Your task to perform on an android device: Go to notification settings Image 0: 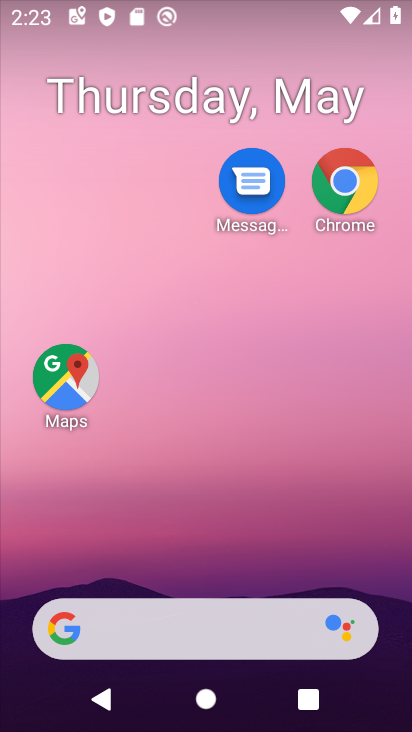
Step 0: drag from (334, 613) to (398, 39)
Your task to perform on an android device: Go to notification settings Image 1: 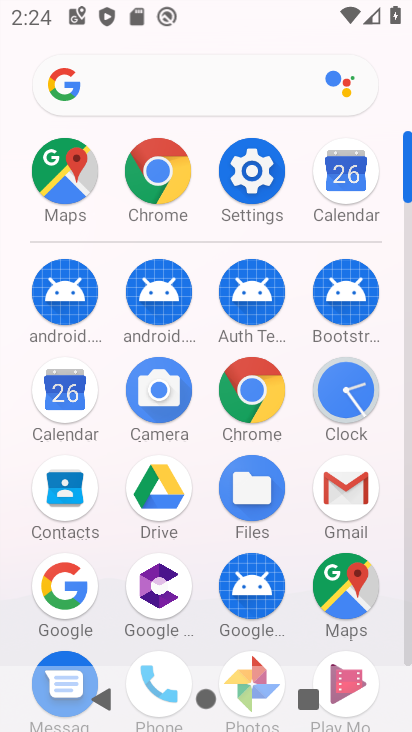
Step 1: click (258, 174)
Your task to perform on an android device: Go to notification settings Image 2: 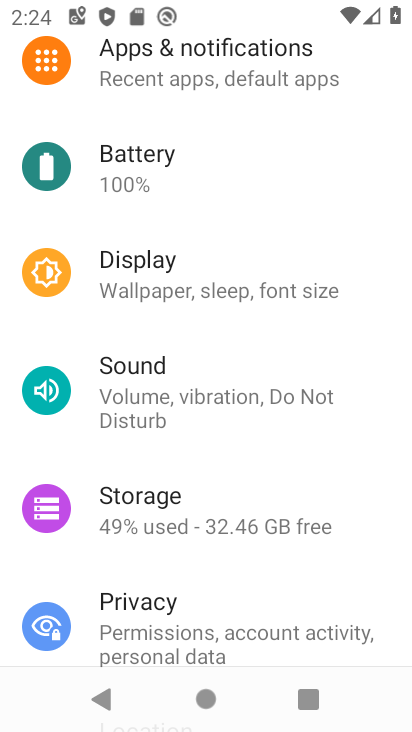
Step 2: click (229, 60)
Your task to perform on an android device: Go to notification settings Image 3: 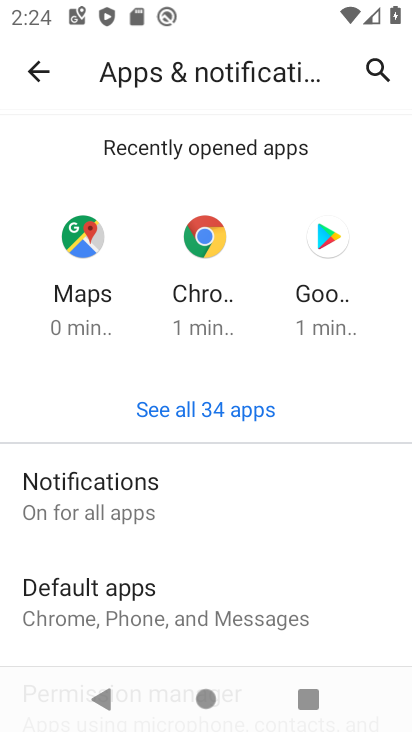
Step 3: drag from (224, 630) to (276, 315)
Your task to perform on an android device: Go to notification settings Image 4: 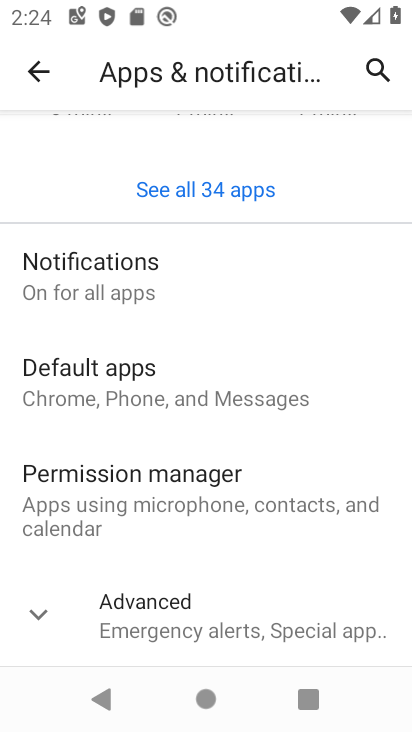
Step 4: click (102, 274)
Your task to perform on an android device: Go to notification settings Image 5: 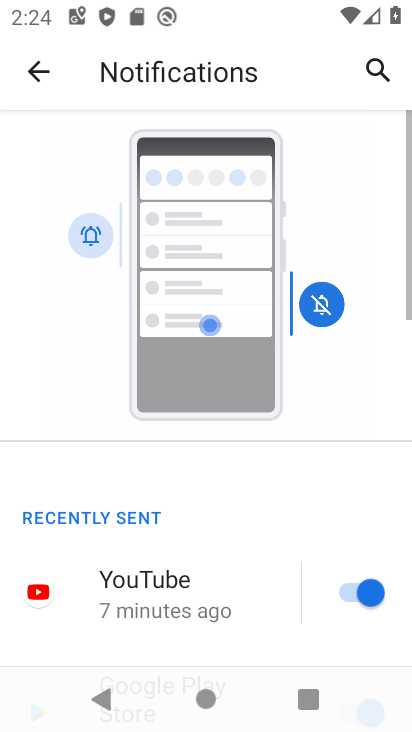
Step 5: task complete